Your task to perform on an android device: Open CNN.com Image 0: 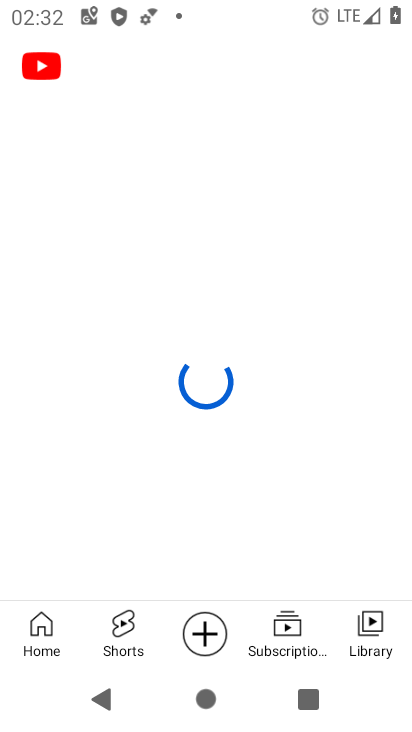
Step 0: press home button
Your task to perform on an android device: Open CNN.com Image 1: 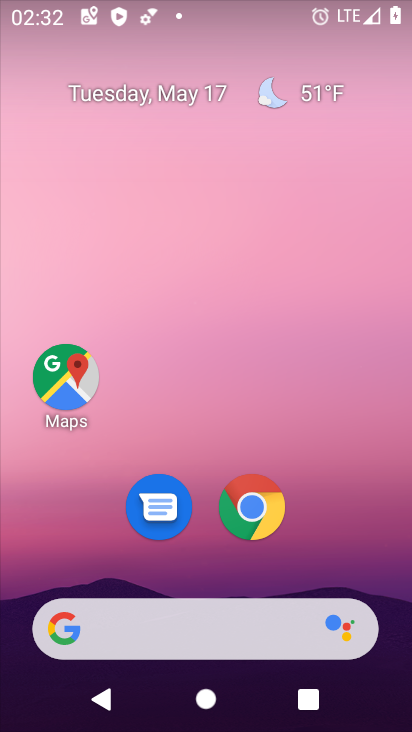
Step 1: click (256, 505)
Your task to perform on an android device: Open CNN.com Image 2: 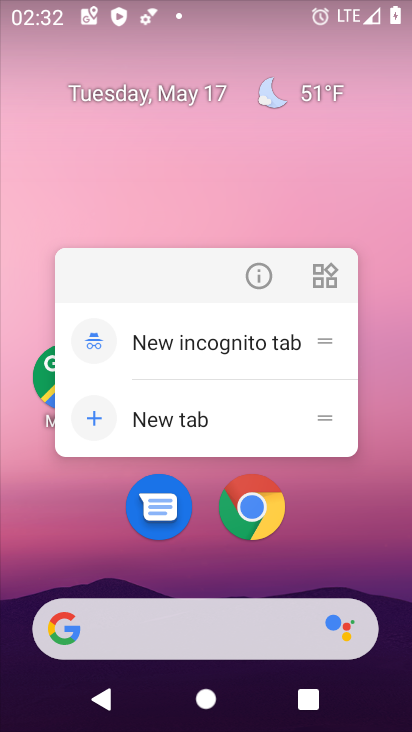
Step 2: click (256, 505)
Your task to perform on an android device: Open CNN.com Image 3: 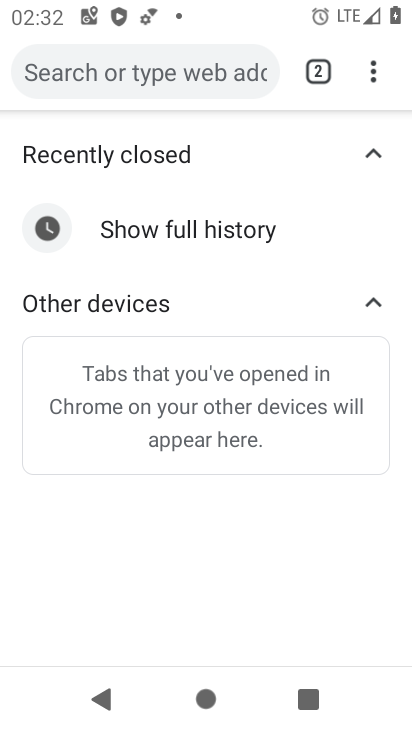
Step 3: click (134, 73)
Your task to perform on an android device: Open CNN.com Image 4: 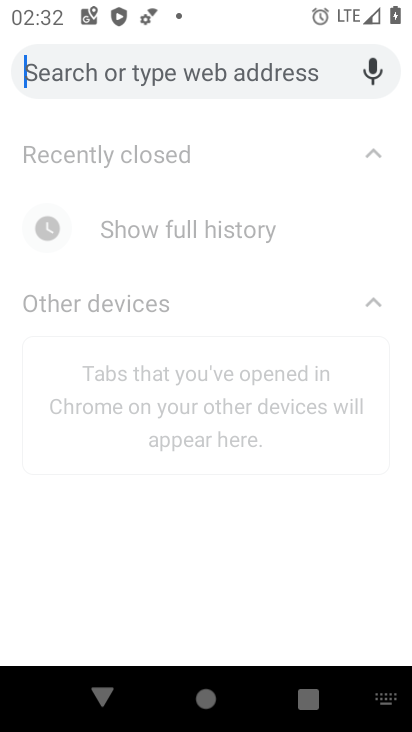
Step 4: type "CNN.com"
Your task to perform on an android device: Open CNN.com Image 5: 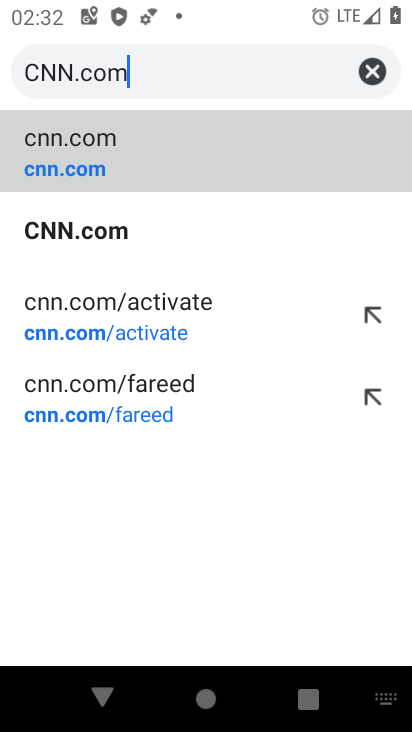
Step 5: click (61, 146)
Your task to perform on an android device: Open CNN.com Image 6: 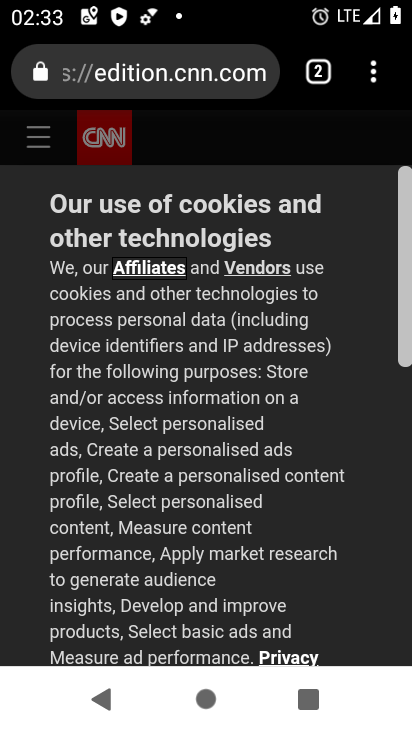
Step 6: task complete